Your task to perform on an android device: Open calendar and show me the first week of next month Image 0: 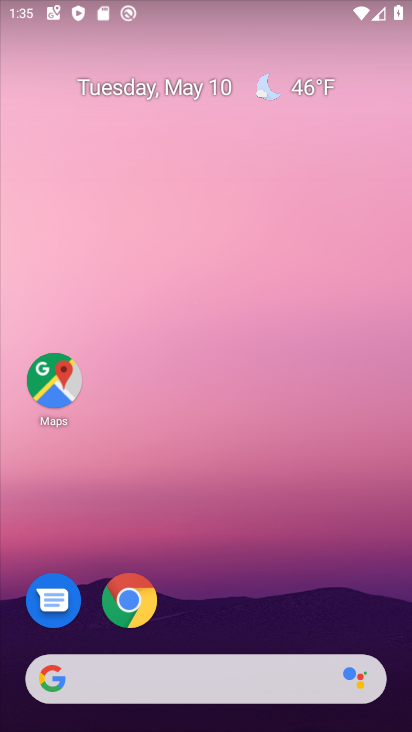
Step 0: press home button
Your task to perform on an android device: Open calendar and show me the first week of next month Image 1: 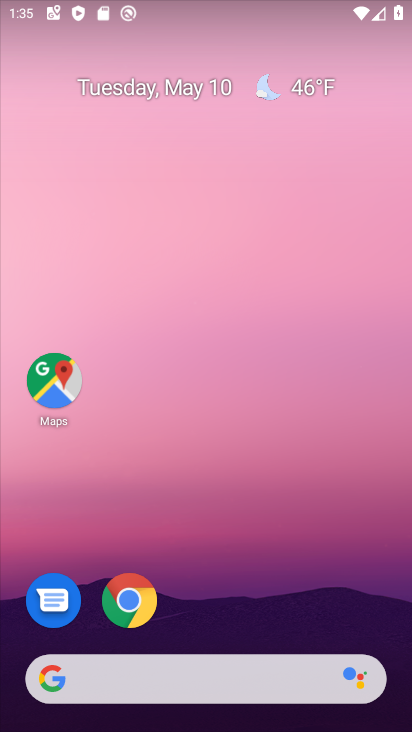
Step 1: drag from (90, 683) to (206, 175)
Your task to perform on an android device: Open calendar and show me the first week of next month Image 2: 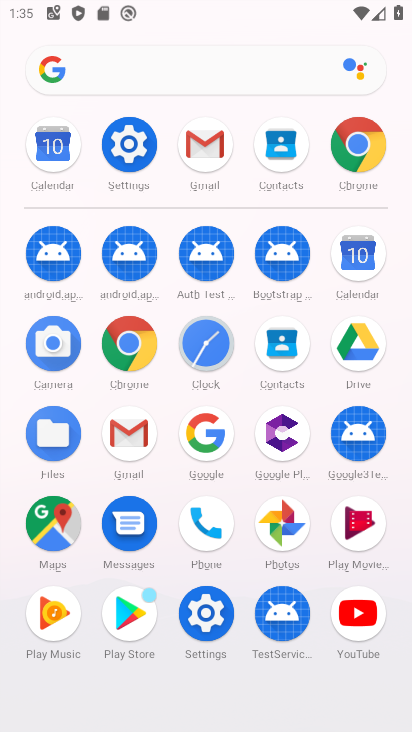
Step 2: click (350, 257)
Your task to perform on an android device: Open calendar and show me the first week of next month Image 3: 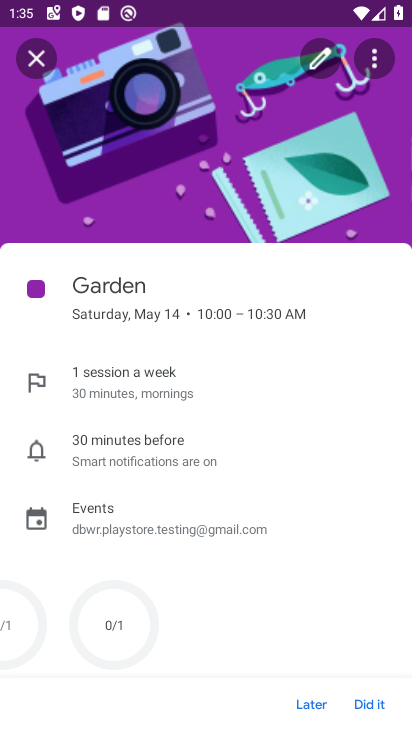
Step 3: click (36, 61)
Your task to perform on an android device: Open calendar and show me the first week of next month Image 4: 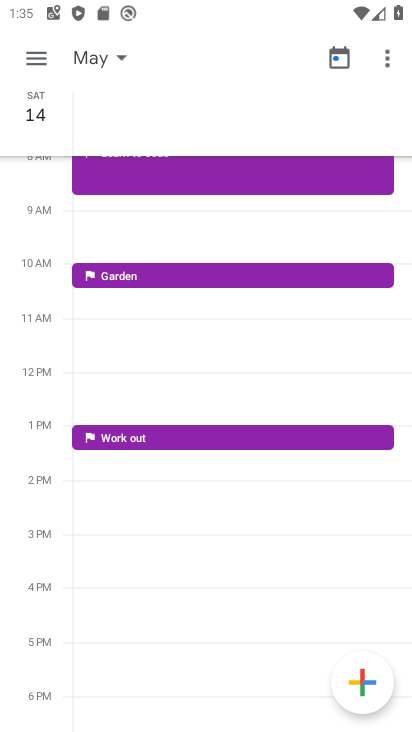
Step 4: click (95, 57)
Your task to perform on an android device: Open calendar and show me the first week of next month Image 5: 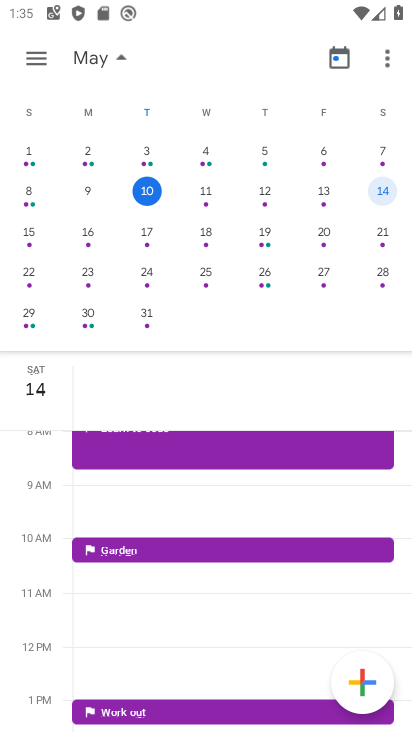
Step 5: drag from (337, 237) to (45, 242)
Your task to perform on an android device: Open calendar and show me the first week of next month Image 6: 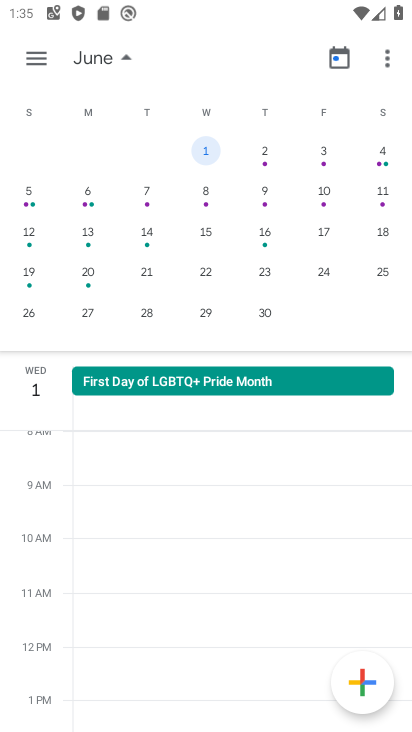
Step 6: click (207, 146)
Your task to perform on an android device: Open calendar and show me the first week of next month Image 7: 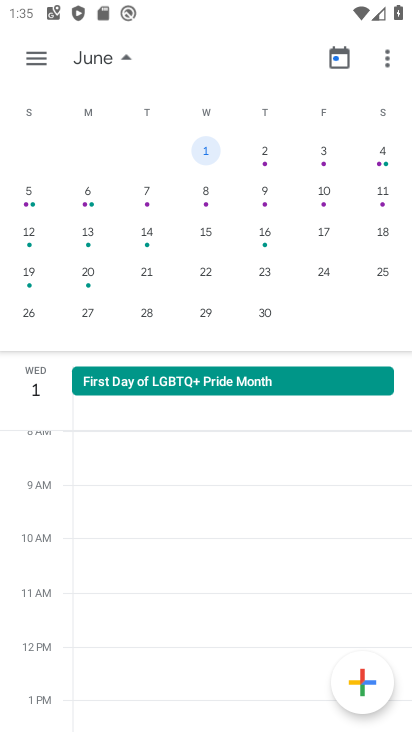
Step 7: click (42, 59)
Your task to perform on an android device: Open calendar and show me the first week of next month Image 8: 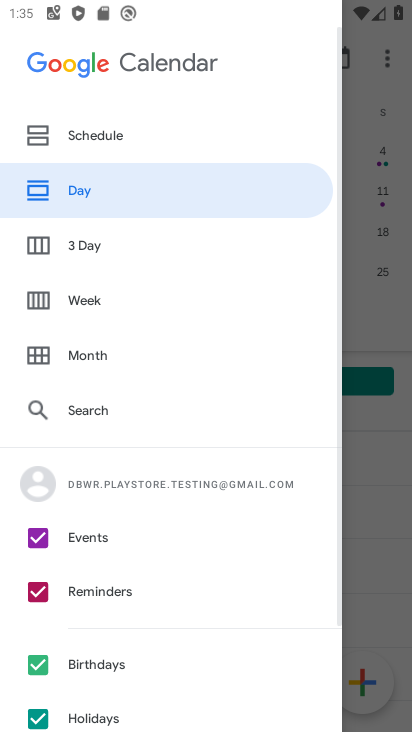
Step 8: click (79, 301)
Your task to perform on an android device: Open calendar and show me the first week of next month Image 9: 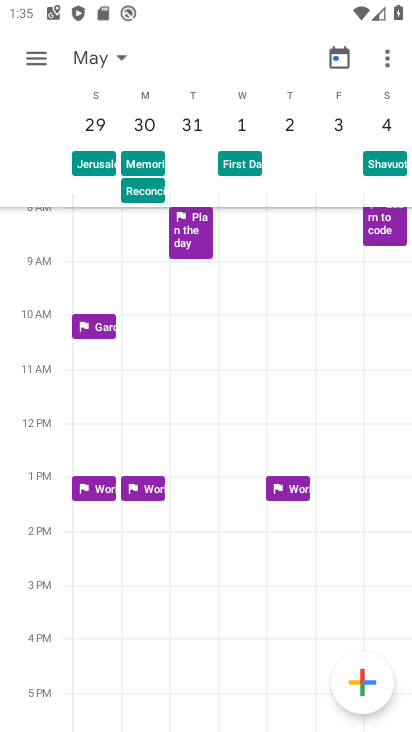
Step 9: task complete